Your task to perform on an android device: show emergency info Image 0: 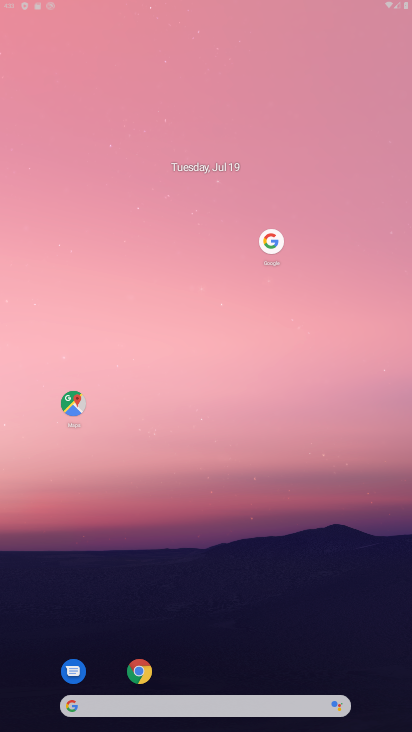
Step 0: press home button
Your task to perform on an android device: show emergency info Image 1: 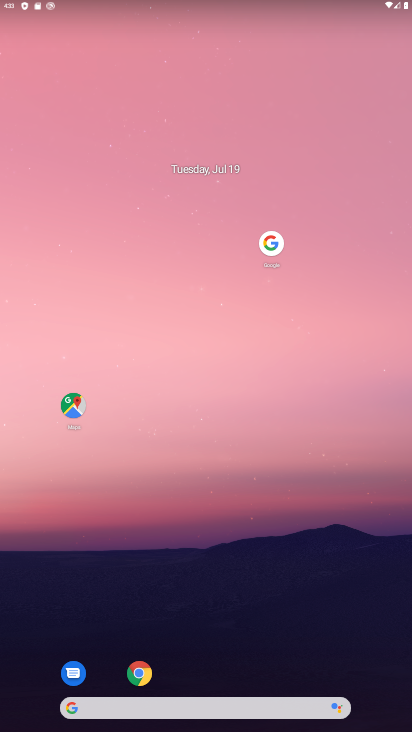
Step 1: drag from (234, 623) to (218, 166)
Your task to perform on an android device: show emergency info Image 2: 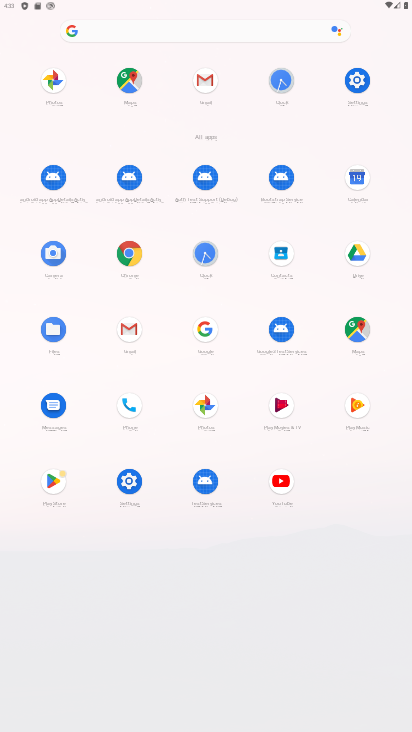
Step 2: click (356, 80)
Your task to perform on an android device: show emergency info Image 3: 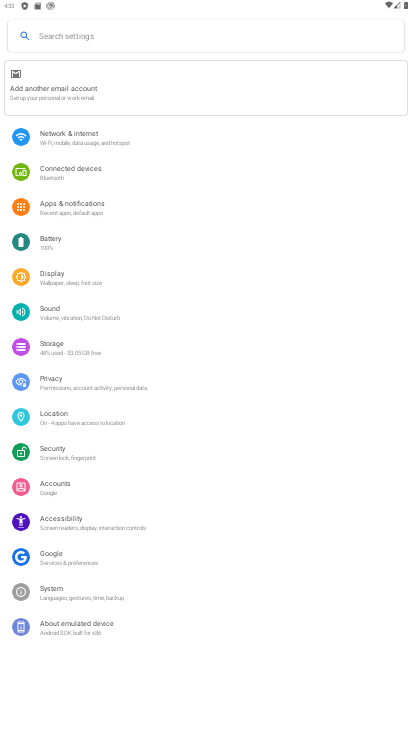
Step 3: click (78, 626)
Your task to perform on an android device: show emergency info Image 4: 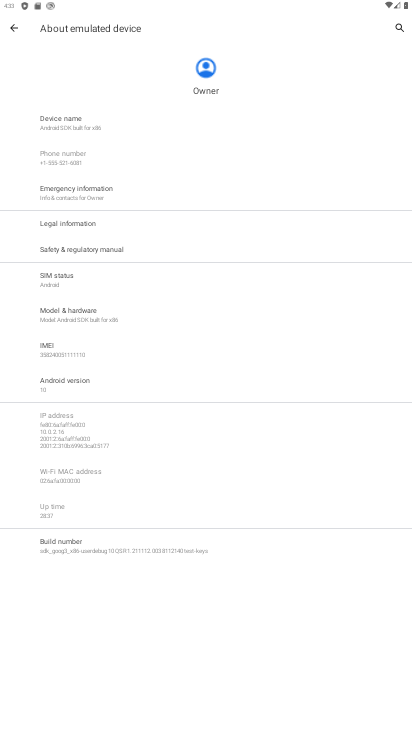
Step 4: click (89, 196)
Your task to perform on an android device: show emergency info Image 5: 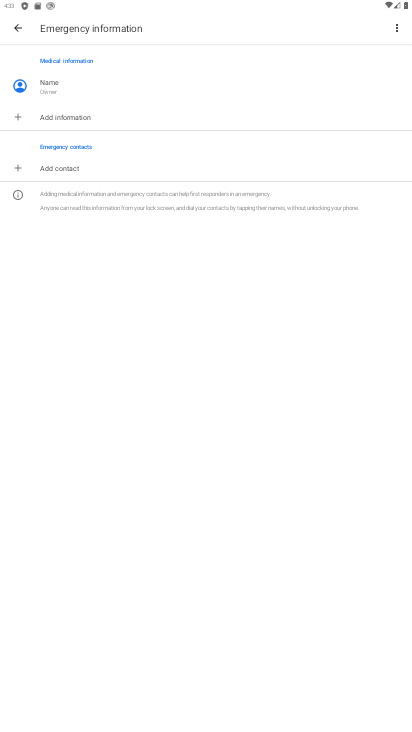
Step 5: task complete